Your task to perform on an android device: Open settings Image 0: 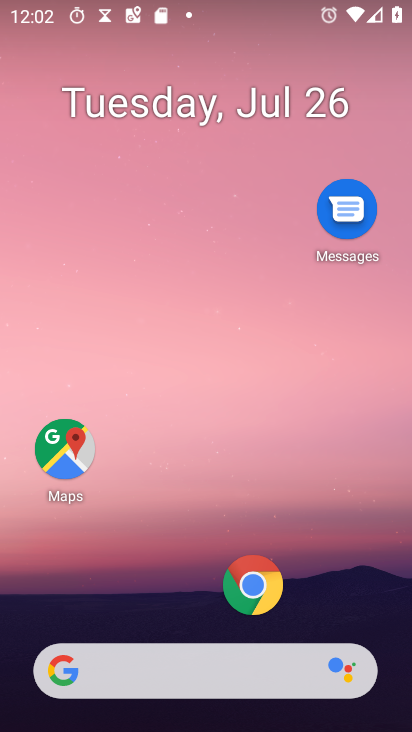
Step 0: press home button
Your task to perform on an android device: Open settings Image 1: 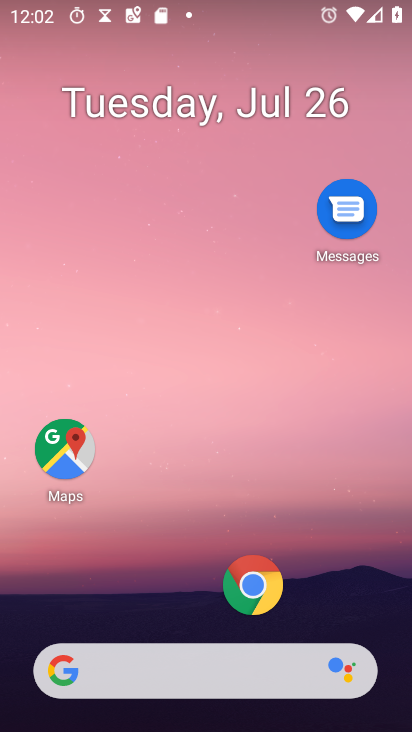
Step 1: drag from (222, 677) to (385, 96)
Your task to perform on an android device: Open settings Image 2: 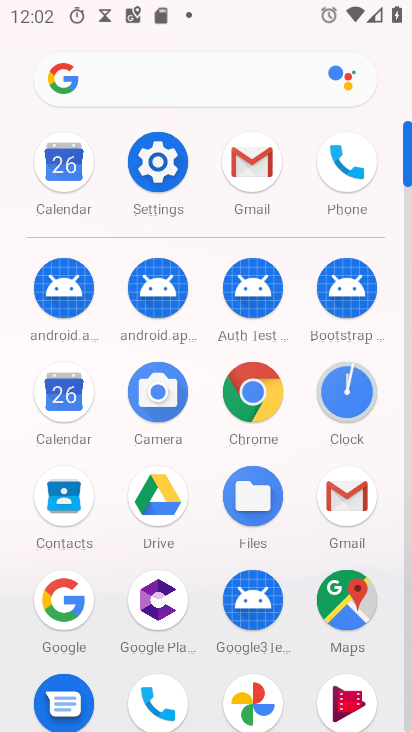
Step 2: click (159, 164)
Your task to perform on an android device: Open settings Image 3: 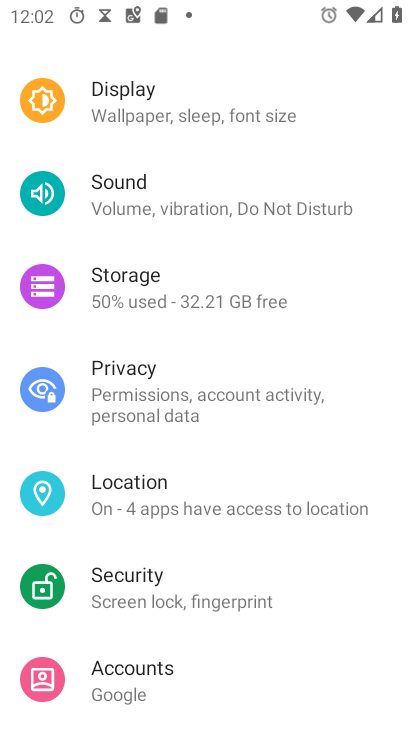
Step 3: task complete